Your task to perform on an android device: Open settings Image 0: 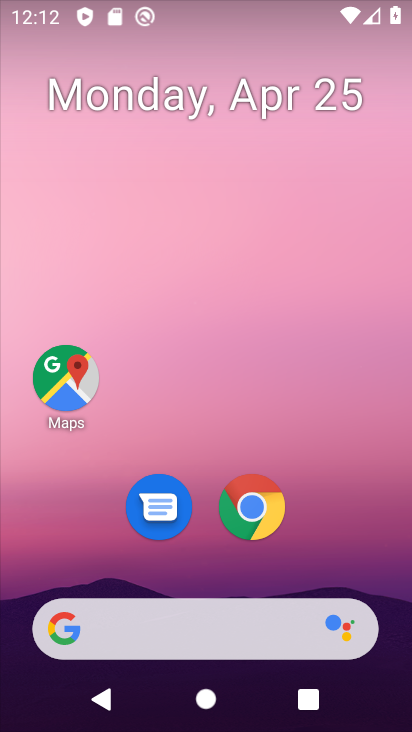
Step 0: drag from (193, 545) to (307, 3)
Your task to perform on an android device: Open settings Image 1: 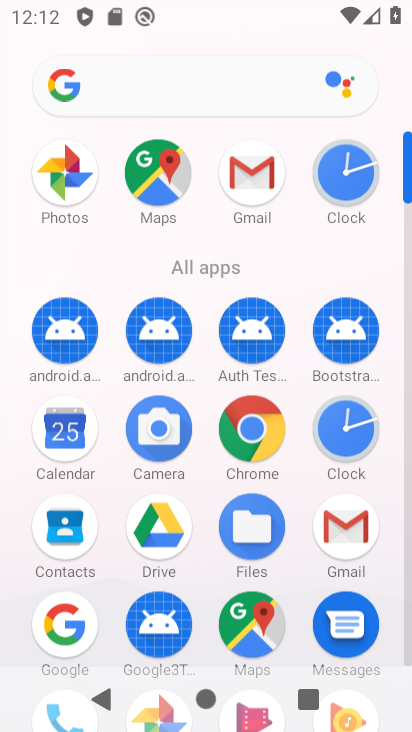
Step 1: drag from (219, 678) to (291, 287)
Your task to perform on an android device: Open settings Image 2: 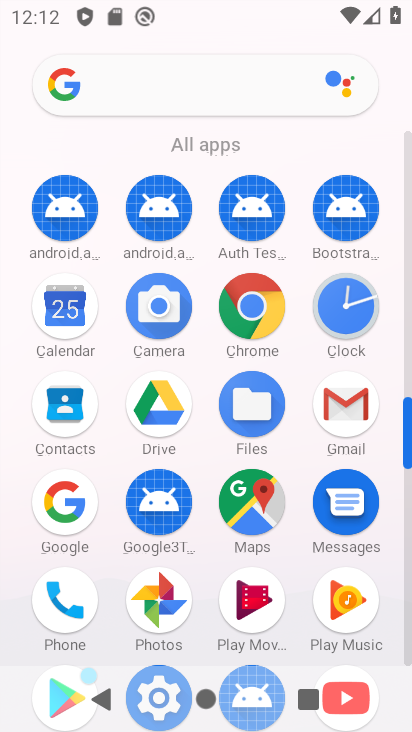
Step 2: click (164, 681)
Your task to perform on an android device: Open settings Image 3: 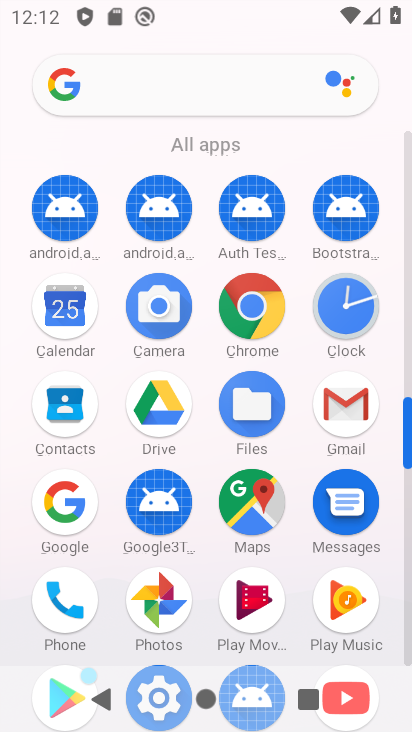
Step 3: drag from (190, 659) to (208, 465)
Your task to perform on an android device: Open settings Image 4: 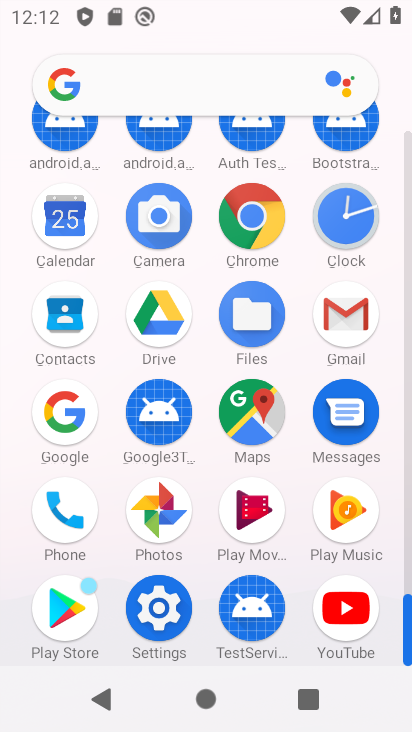
Step 4: click (169, 615)
Your task to perform on an android device: Open settings Image 5: 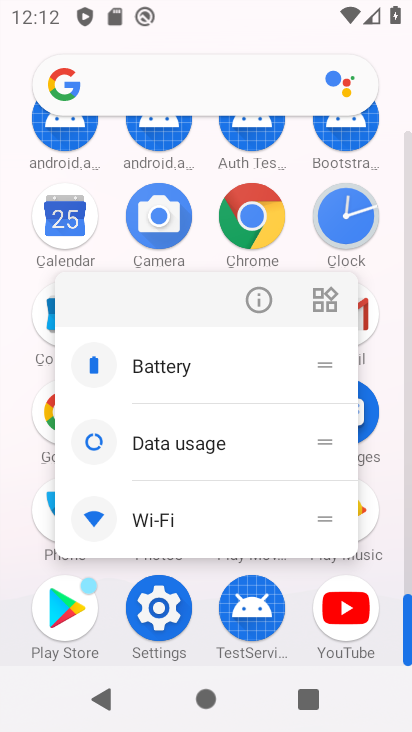
Step 5: click (162, 615)
Your task to perform on an android device: Open settings Image 6: 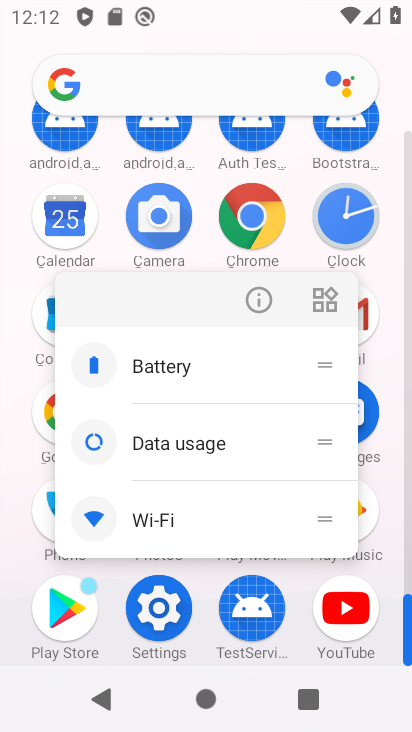
Step 6: click (158, 614)
Your task to perform on an android device: Open settings Image 7: 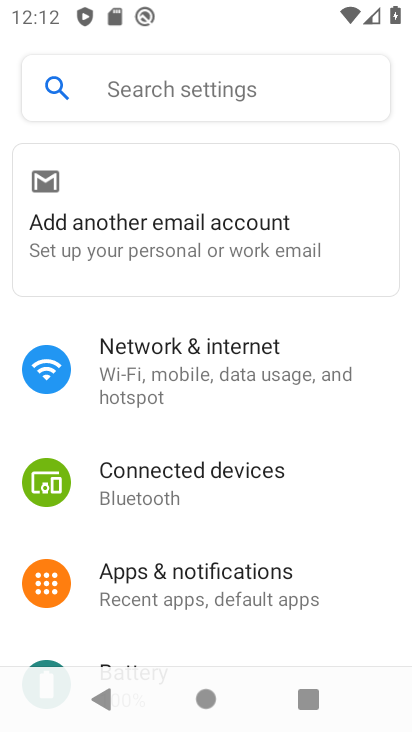
Step 7: task complete